Your task to perform on an android device: Open Reddit.com Image 0: 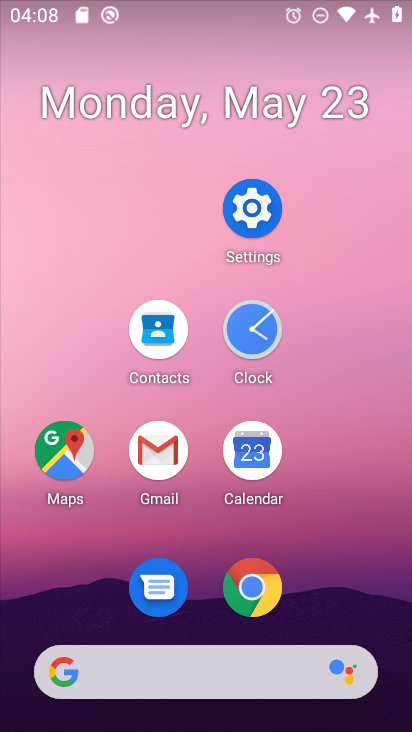
Step 0: click (249, 662)
Your task to perform on an android device: Open Reddit.com Image 1: 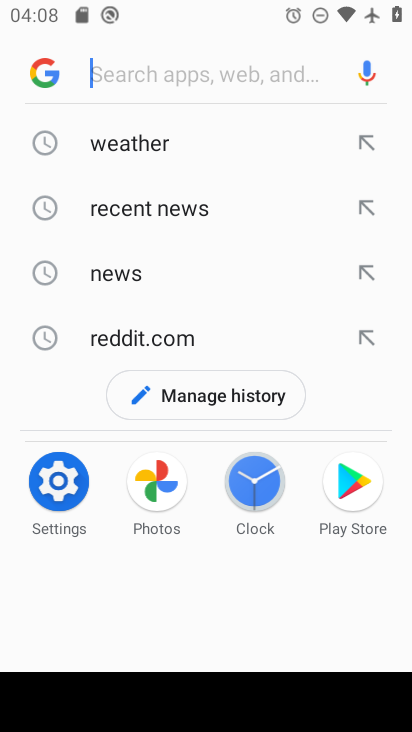
Step 1: type "reddit"
Your task to perform on an android device: Open Reddit.com Image 2: 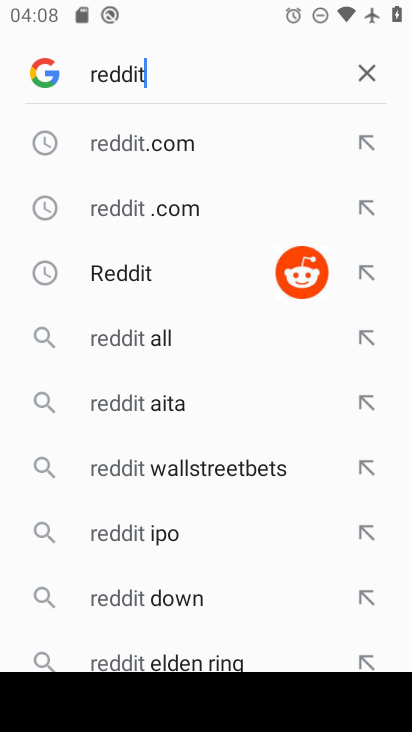
Step 2: click (198, 146)
Your task to perform on an android device: Open Reddit.com Image 3: 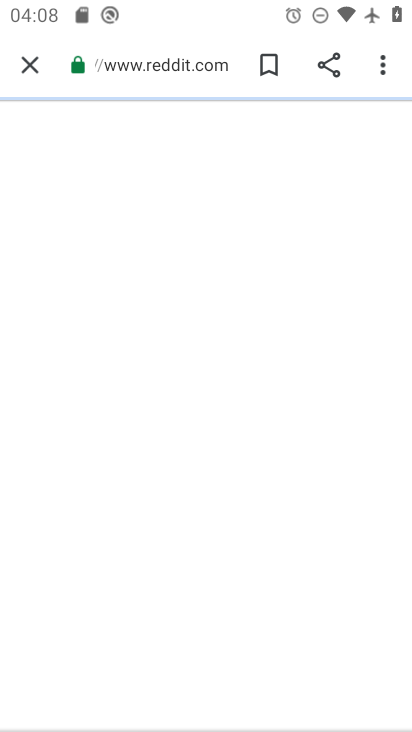
Step 3: task complete